Your task to perform on an android device: uninstall "Google Chrome" Image 0: 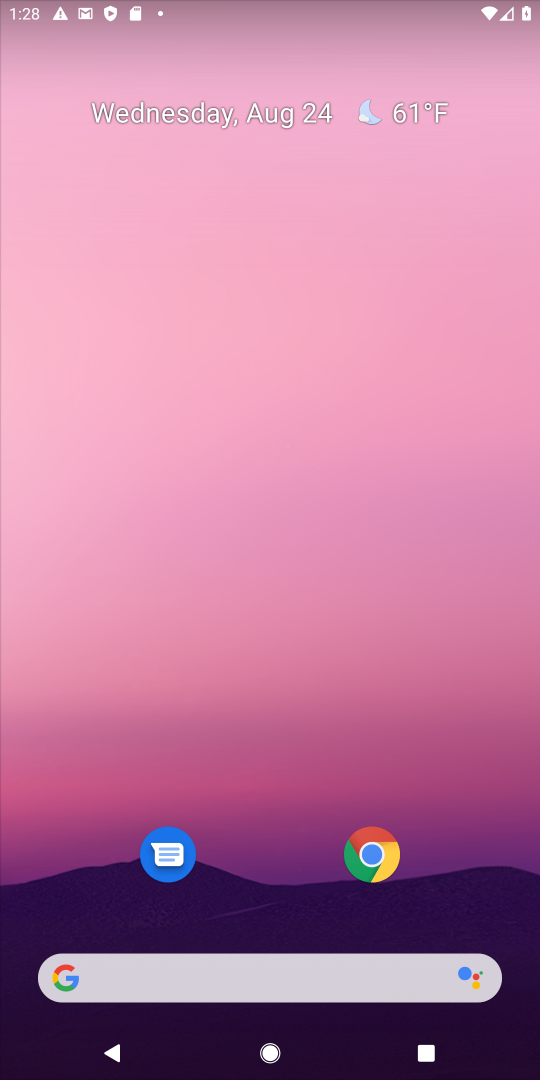
Step 0: press home button
Your task to perform on an android device: uninstall "Google Chrome" Image 1: 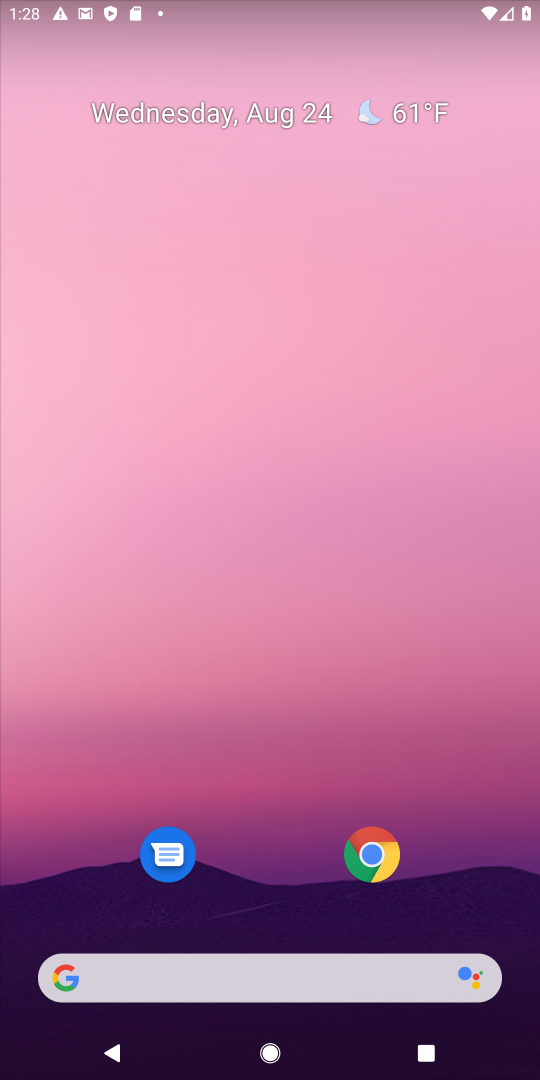
Step 1: drag from (453, 892) to (508, 82)
Your task to perform on an android device: uninstall "Google Chrome" Image 2: 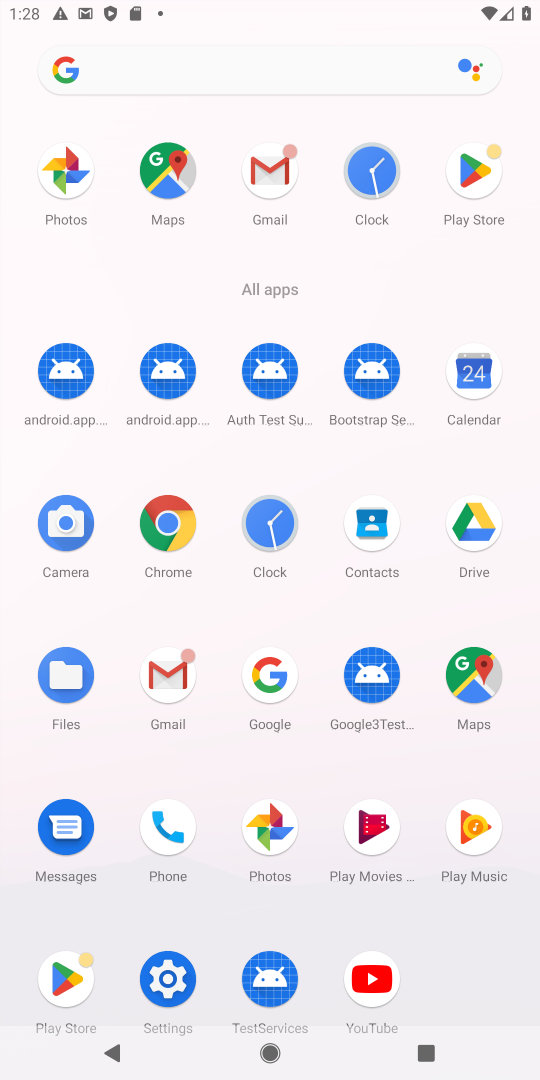
Step 2: click (472, 165)
Your task to perform on an android device: uninstall "Google Chrome" Image 3: 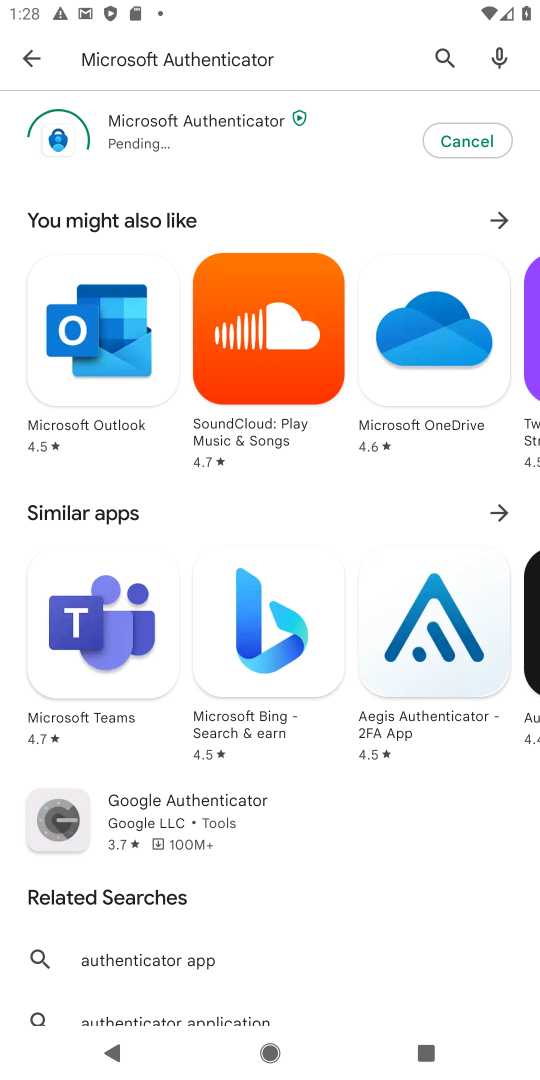
Step 3: press back button
Your task to perform on an android device: uninstall "Google Chrome" Image 4: 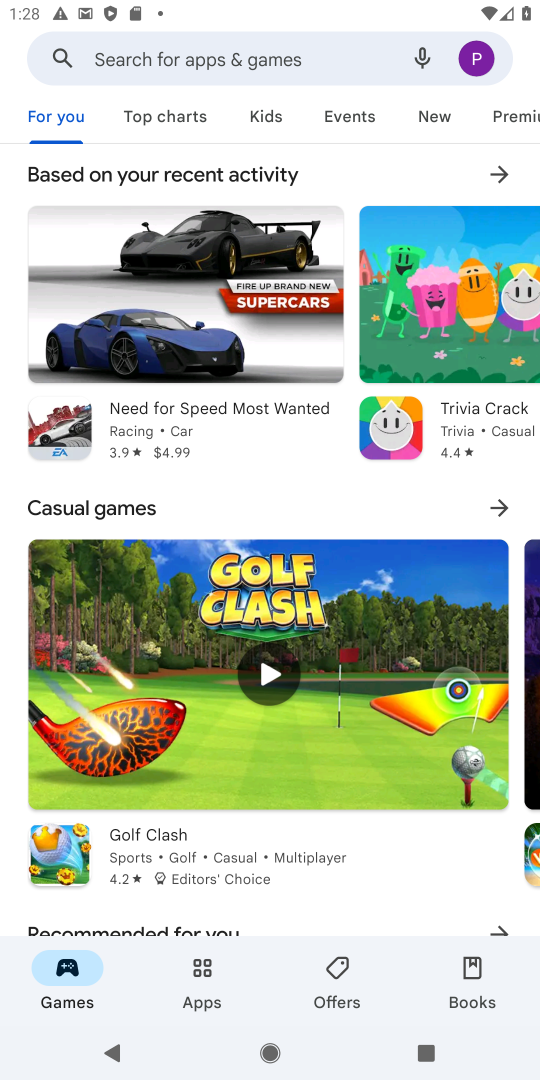
Step 4: click (318, 52)
Your task to perform on an android device: uninstall "Google Chrome" Image 5: 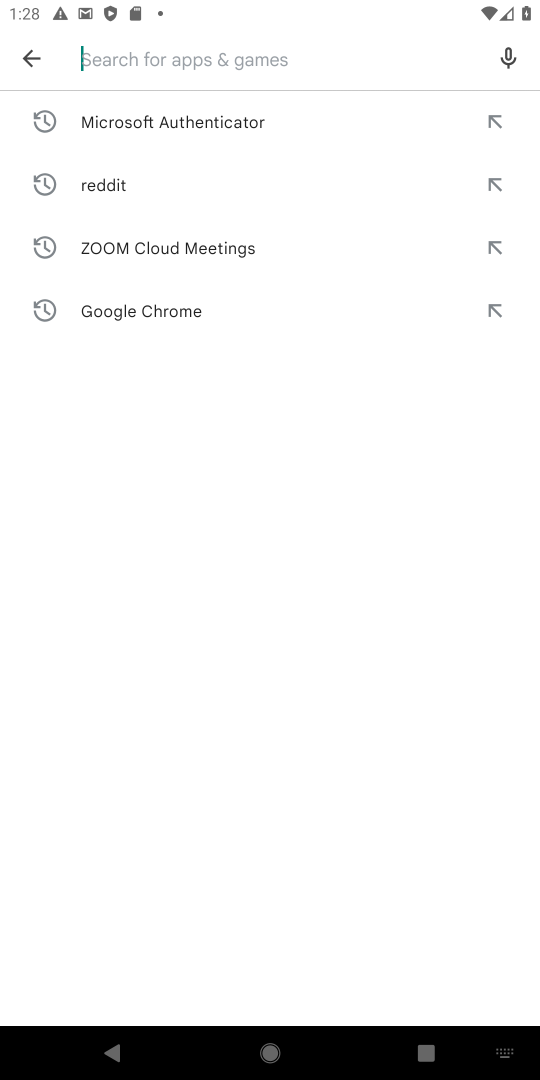
Step 5: type "google chrome"
Your task to perform on an android device: uninstall "Google Chrome" Image 6: 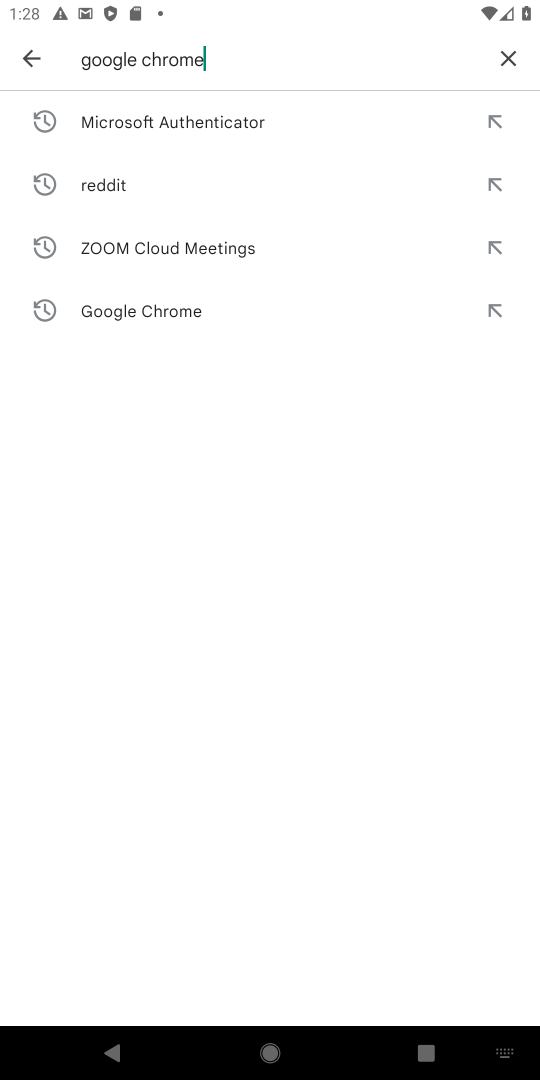
Step 6: press enter
Your task to perform on an android device: uninstall "Google Chrome" Image 7: 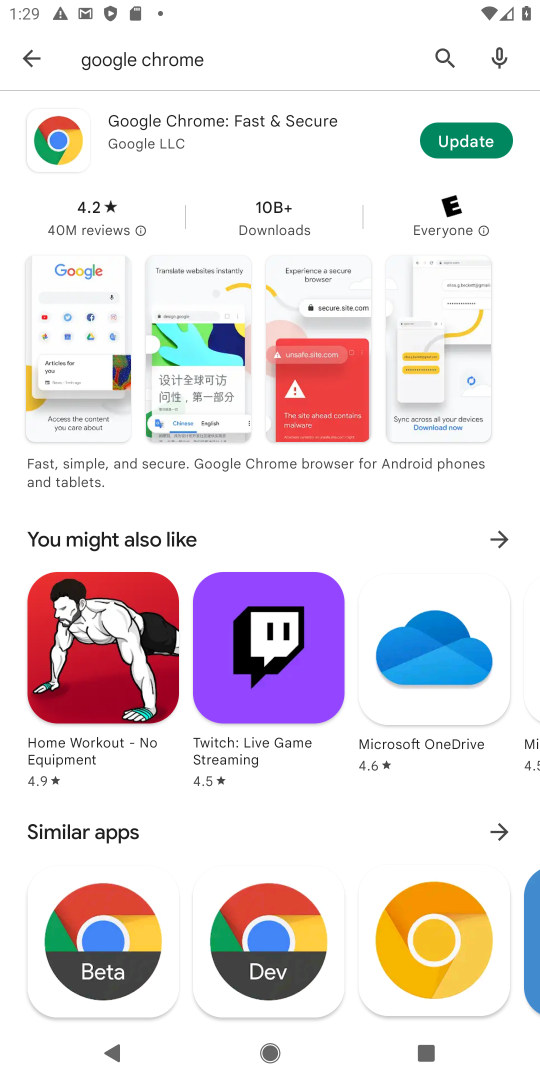
Step 7: task complete